Your task to perform on an android device: allow cookies in the chrome app Image 0: 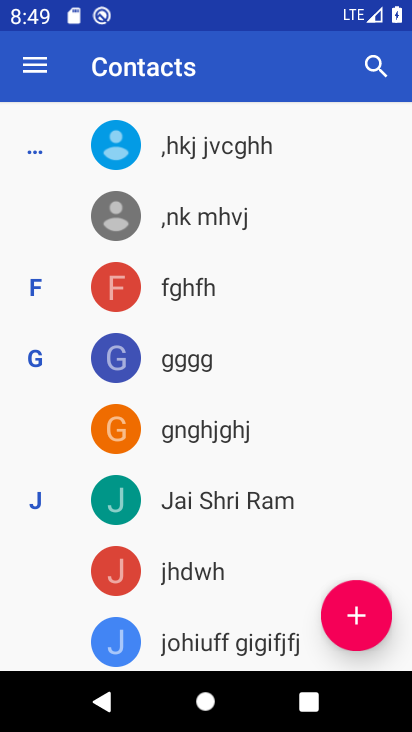
Step 0: press home button
Your task to perform on an android device: allow cookies in the chrome app Image 1: 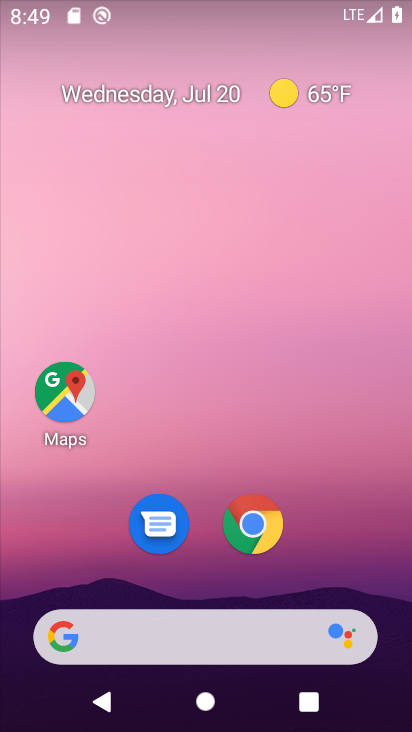
Step 1: click (267, 525)
Your task to perform on an android device: allow cookies in the chrome app Image 2: 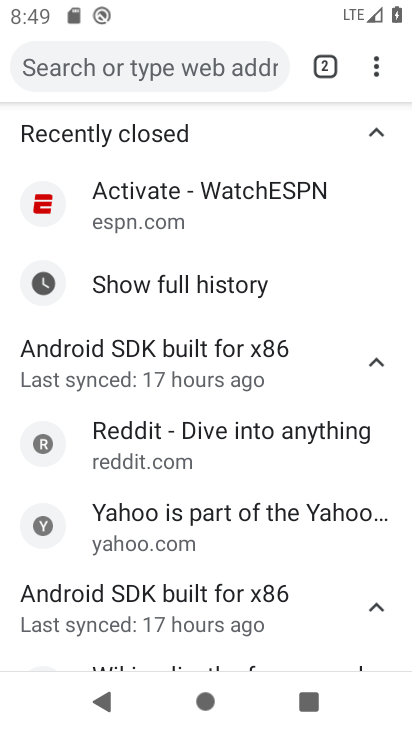
Step 2: click (374, 71)
Your task to perform on an android device: allow cookies in the chrome app Image 3: 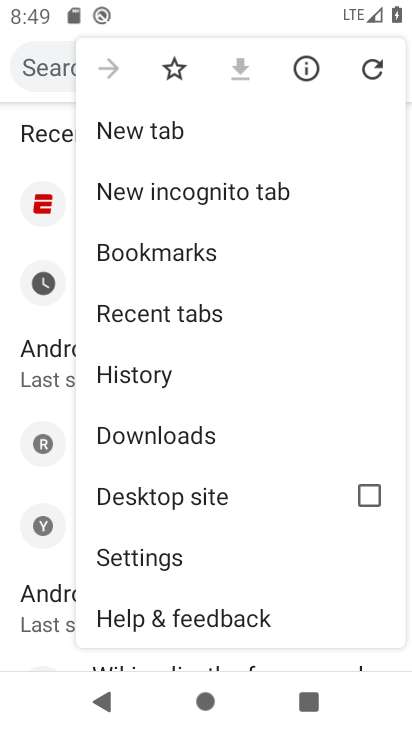
Step 3: drag from (247, 475) to (282, 241)
Your task to perform on an android device: allow cookies in the chrome app Image 4: 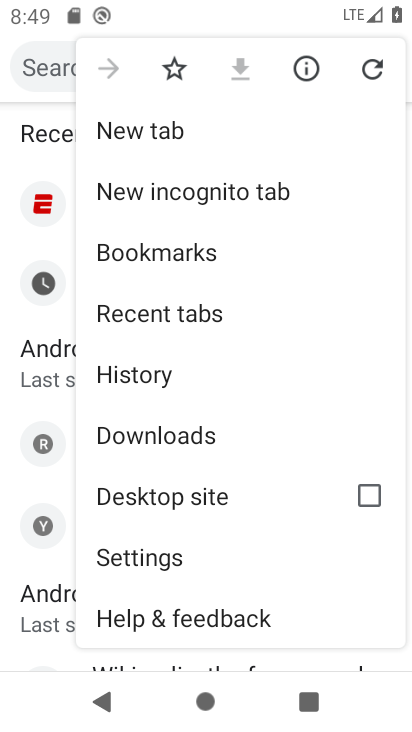
Step 4: click (172, 554)
Your task to perform on an android device: allow cookies in the chrome app Image 5: 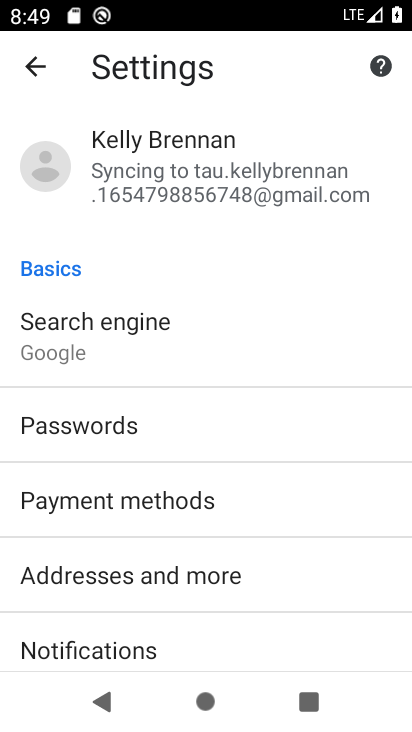
Step 5: drag from (280, 431) to (311, 245)
Your task to perform on an android device: allow cookies in the chrome app Image 6: 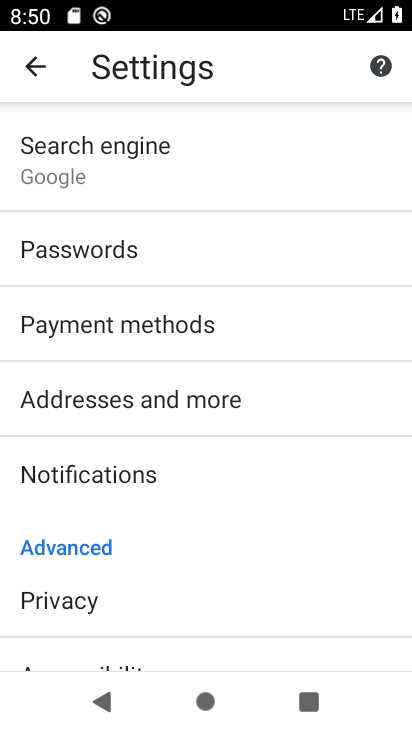
Step 6: drag from (175, 479) to (204, 215)
Your task to perform on an android device: allow cookies in the chrome app Image 7: 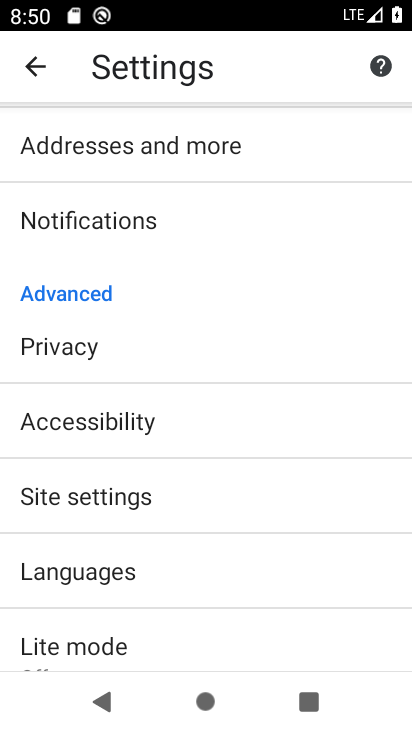
Step 7: click (129, 487)
Your task to perform on an android device: allow cookies in the chrome app Image 8: 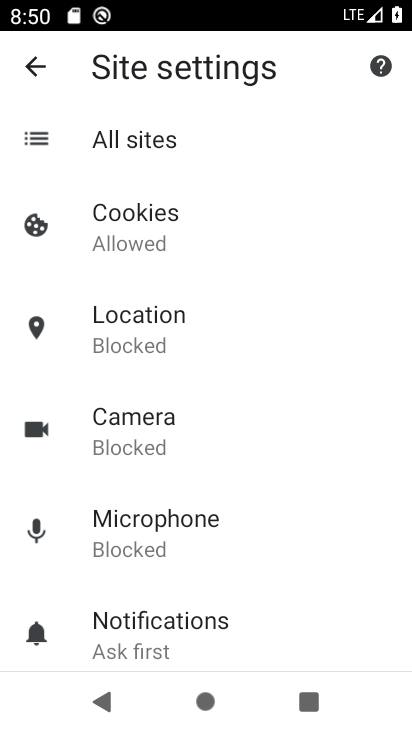
Step 8: click (210, 238)
Your task to perform on an android device: allow cookies in the chrome app Image 9: 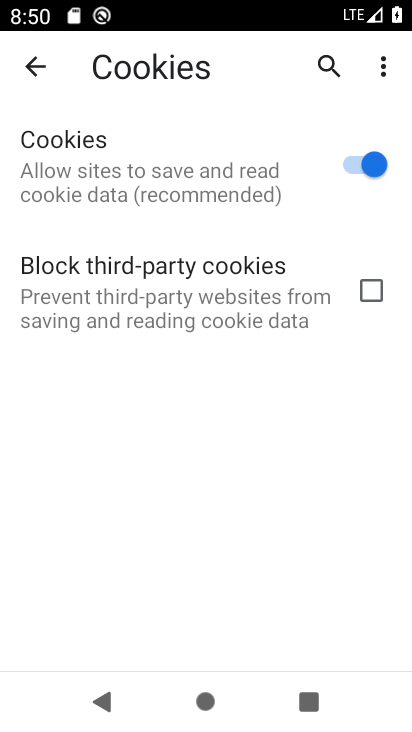
Step 9: task complete